Your task to perform on an android device: Clear the cart on costco. Add usb-a to usb-b to the cart on costco Image 0: 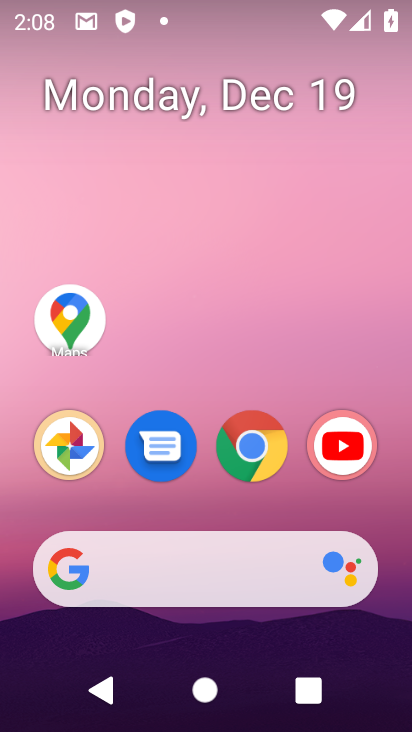
Step 0: click (244, 454)
Your task to perform on an android device: Clear the cart on costco. Add usb-a to usb-b to the cart on costco Image 1: 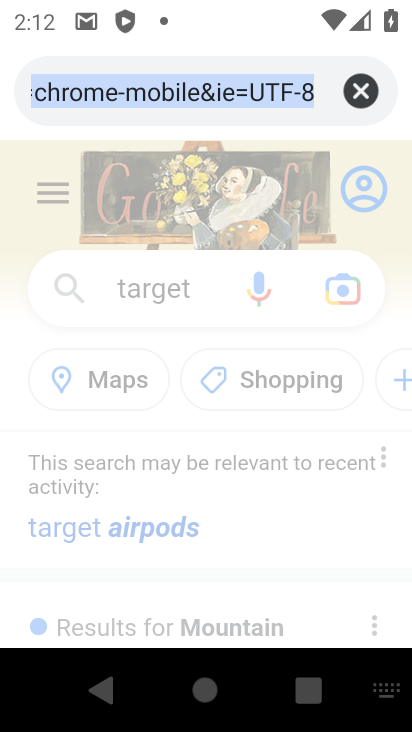
Step 1: task complete